Your task to perform on an android device: allow cookies in the chrome app Image 0: 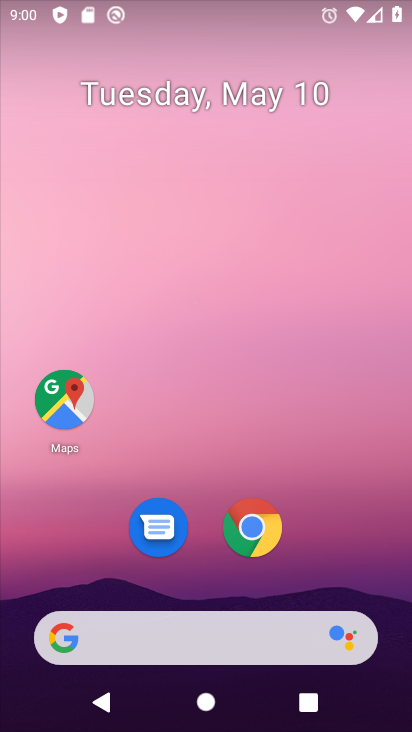
Step 0: click (250, 545)
Your task to perform on an android device: allow cookies in the chrome app Image 1: 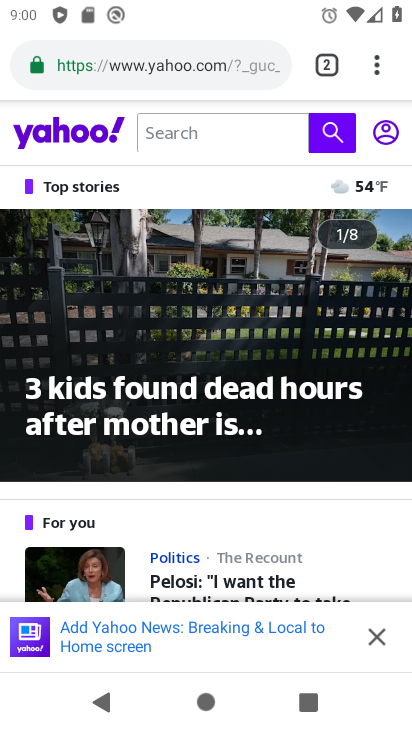
Step 1: click (377, 64)
Your task to perform on an android device: allow cookies in the chrome app Image 2: 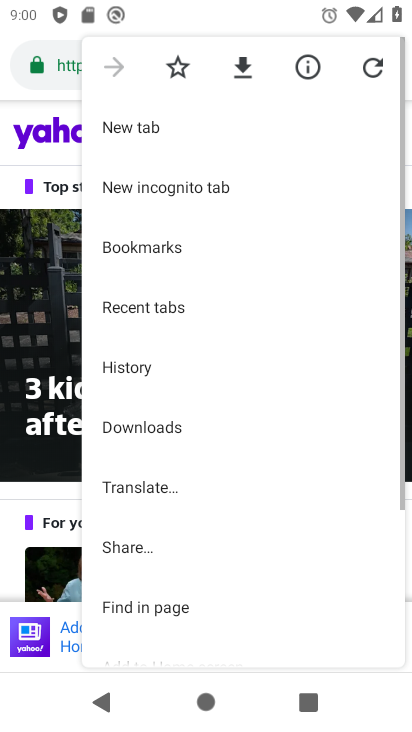
Step 2: drag from (254, 507) to (250, 298)
Your task to perform on an android device: allow cookies in the chrome app Image 3: 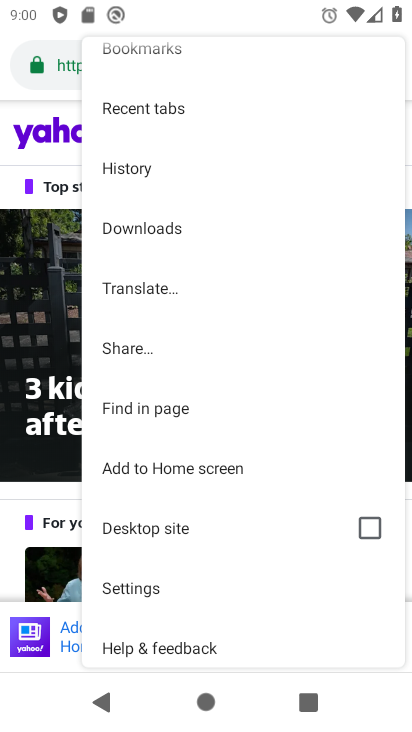
Step 3: click (149, 588)
Your task to perform on an android device: allow cookies in the chrome app Image 4: 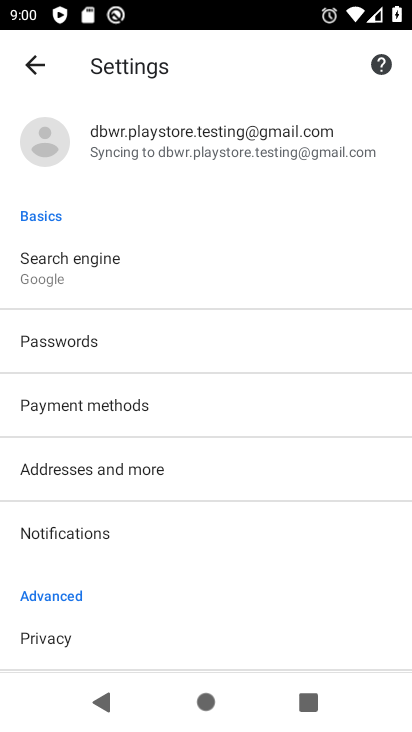
Step 4: drag from (80, 486) to (93, 160)
Your task to perform on an android device: allow cookies in the chrome app Image 5: 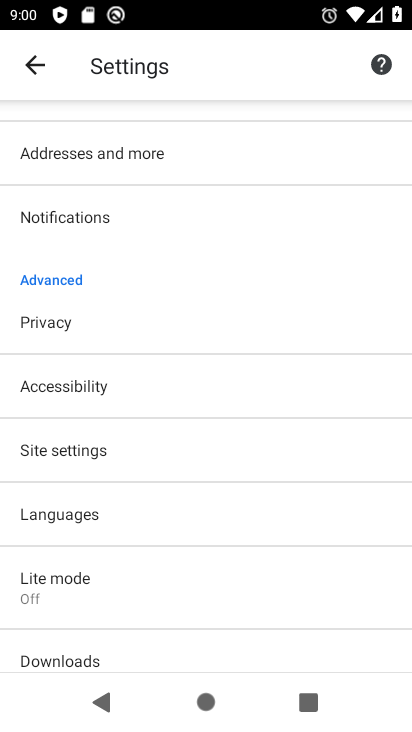
Step 5: click (72, 463)
Your task to perform on an android device: allow cookies in the chrome app Image 6: 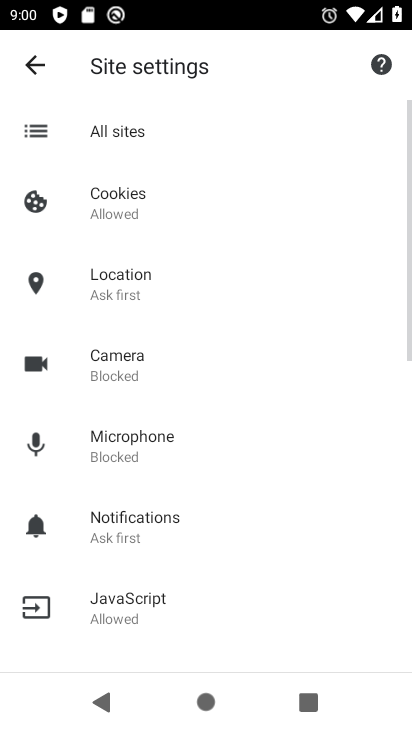
Step 6: click (149, 212)
Your task to perform on an android device: allow cookies in the chrome app Image 7: 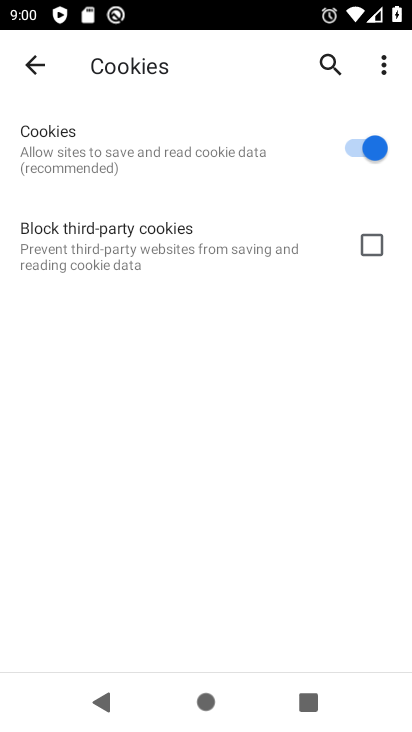
Step 7: task complete